Your task to perform on an android device: turn on translation in the chrome app Image 0: 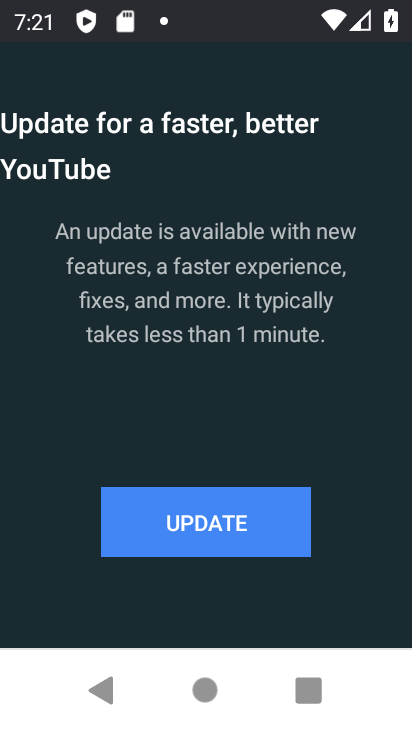
Step 0: press home button
Your task to perform on an android device: turn on translation in the chrome app Image 1: 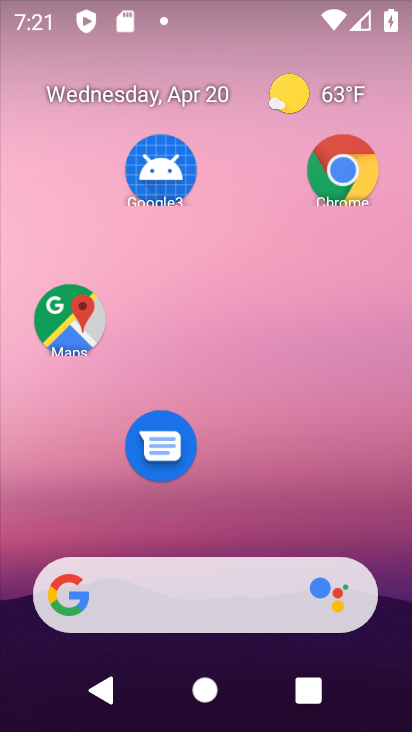
Step 1: click (348, 162)
Your task to perform on an android device: turn on translation in the chrome app Image 2: 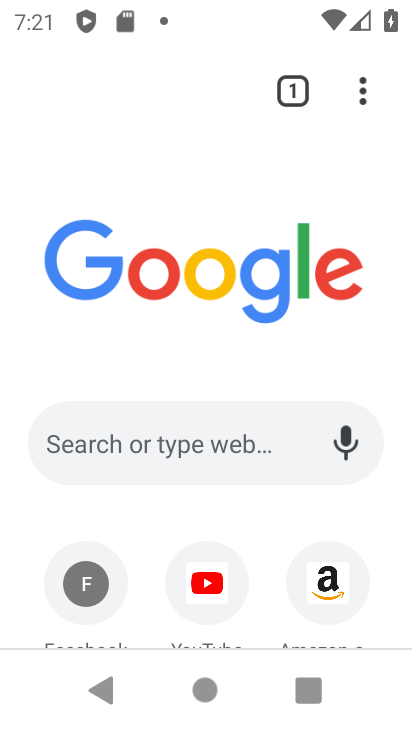
Step 2: click (360, 95)
Your task to perform on an android device: turn on translation in the chrome app Image 3: 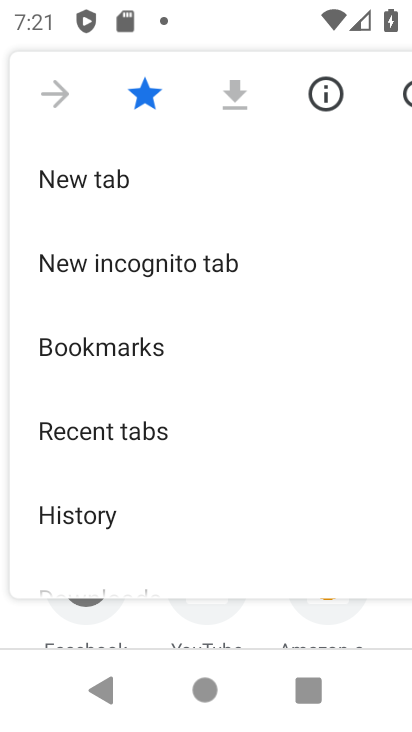
Step 3: drag from (180, 552) to (199, 316)
Your task to perform on an android device: turn on translation in the chrome app Image 4: 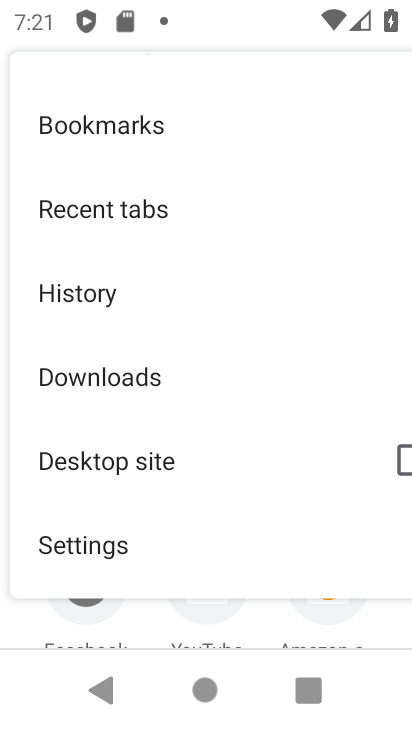
Step 4: click (84, 553)
Your task to perform on an android device: turn on translation in the chrome app Image 5: 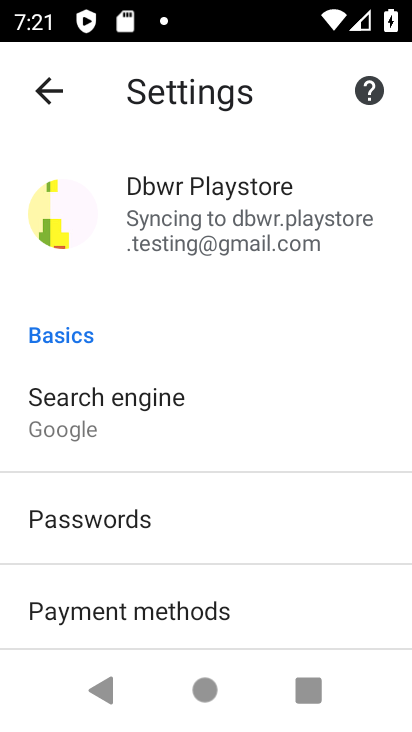
Step 5: drag from (197, 512) to (211, 182)
Your task to perform on an android device: turn on translation in the chrome app Image 6: 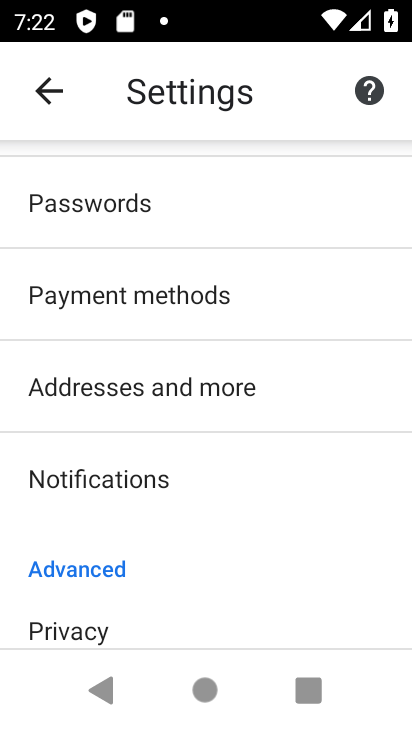
Step 6: drag from (174, 508) to (208, 185)
Your task to perform on an android device: turn on translation in the chrome app Image 7: 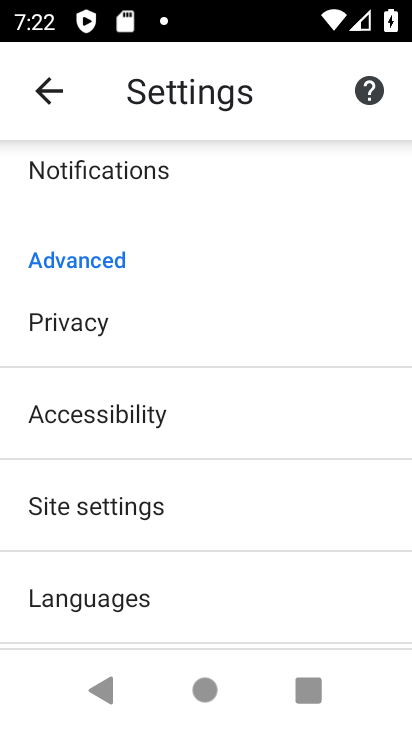
Step 7: click (118, 592)
Your task to perform on an android device: turn on translation in the chrome app Image 8: 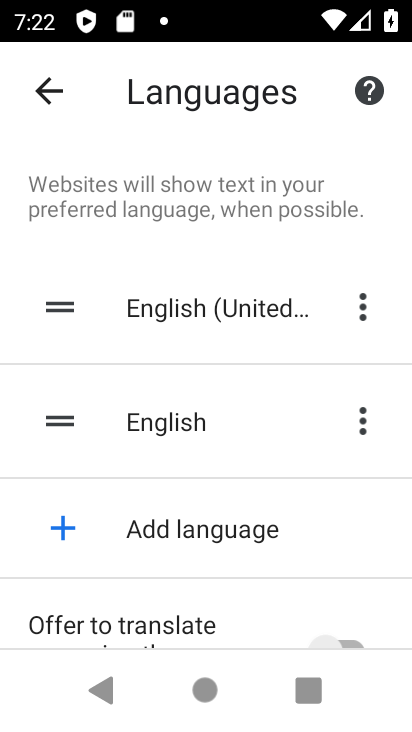
Step 8: drag from (297, 550) to (306, 384)
Your task to perform on an android device: turn on translation in the chrome app Image 9: 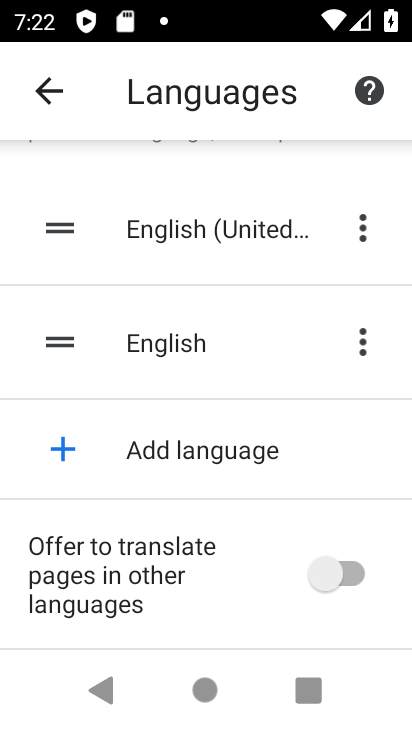
Step 9: click (326, 583)
Your task to perform on an android device: turn on translation in the chrome app Image 10: 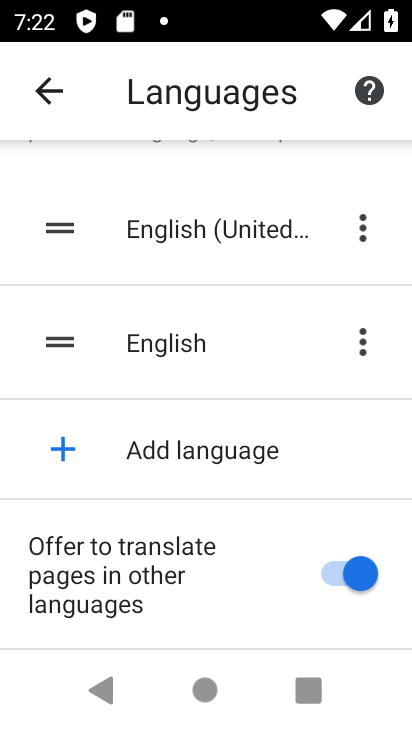
Step 10: task complete